Your task to perform on an android device: Empty the shopping cart on ebay.com. Add razer blackwidow to the cart on ebay.com, then select checkout. Image 0: 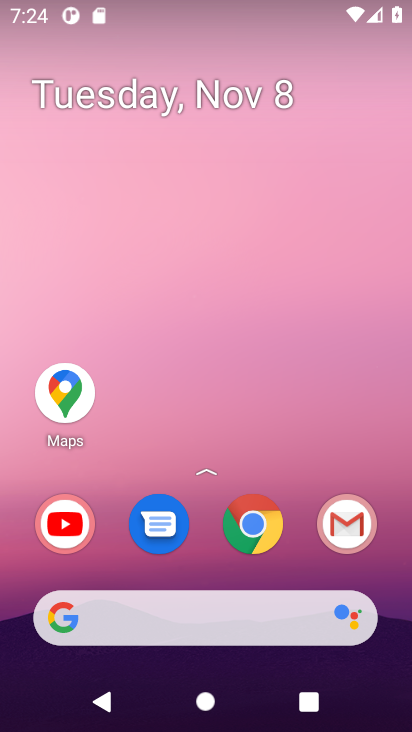
Step 0: click (253, 531)
Your task to perform on an android device: Empty the shopping cart on ebay.com. Add razer blackwidow to the cart on ebay.com, then select checkout. Image 1: 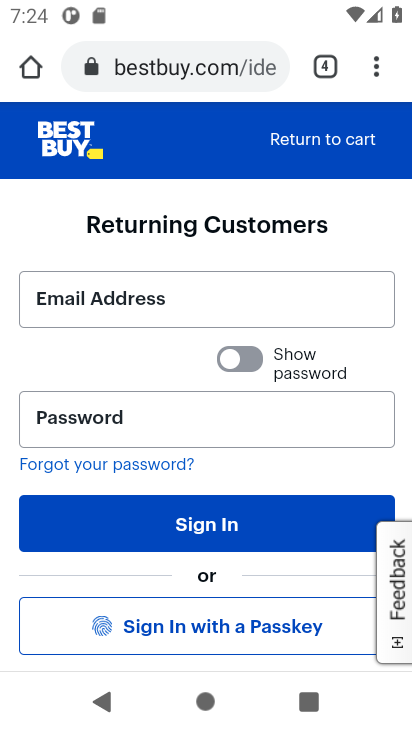
Step 1: click (176, 68)
Your task to perform on an android device: Empty the shopping cart on ebay.com. Add razer blackwidow to the cart on ebay.com, then select checkout. Image 2: 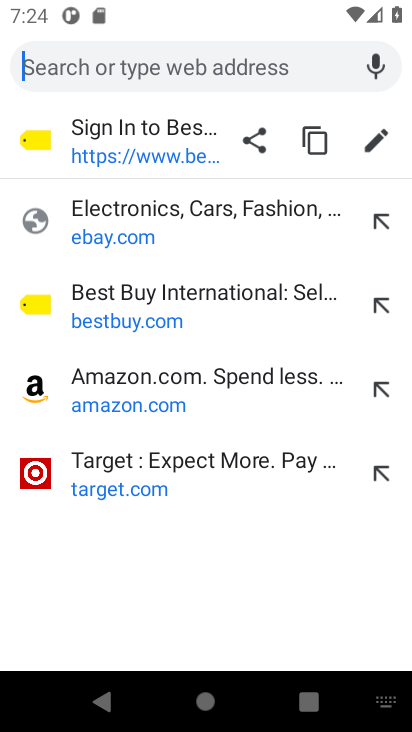
Step 2: click (93, 231)
Your task to perform on an android device: Empty the shopping cart on ebay.com. Add razer blackwidow to the cart on ebay.com, then select checkout. Image 3: 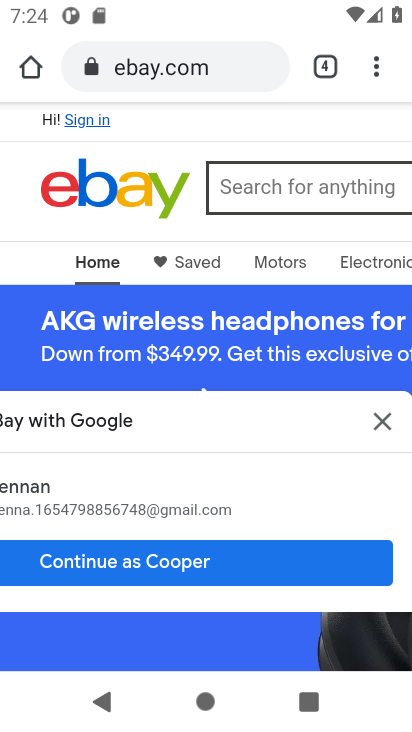
Step 3: drag from (321, 231) to (22, 248)
Your task to perform on an android device: Empty the shopping cart on ebay.com. Add razer blackwidow to the cart on ebay.com, then select checkout. Image 4: 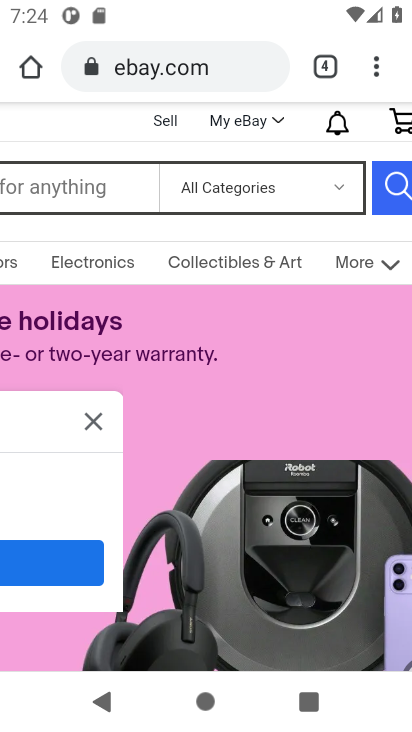
Step 4: click (402, 124)
Your task to perform on an android device: Empty the shopping cart on ebay.com. Add razer blackwidow to the cart on ebay.com, then select checkout. Image 5: 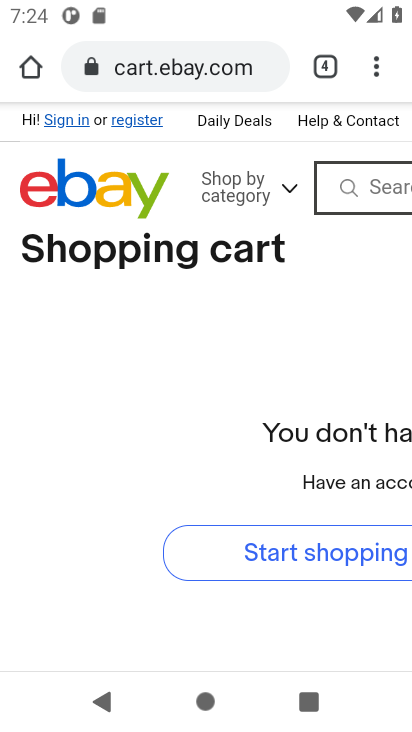
Step 5: drag from (372, 331) to (48, 330)
Your task to perform on an android device: Empty the shopping cart on ebay.com. Add razer blackwidow to the cart on ebay.com, then select checkout. Image 6: 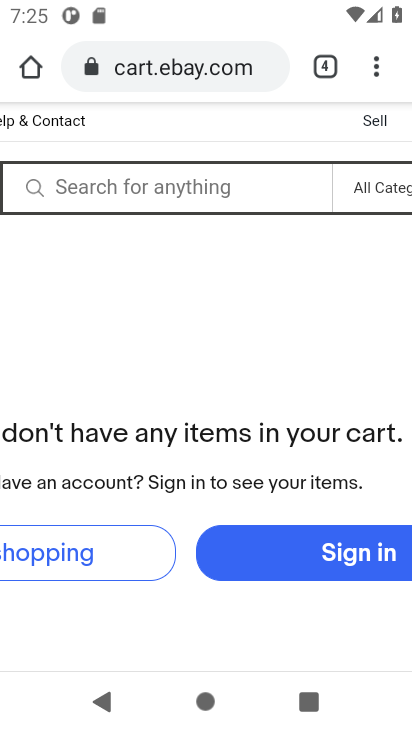
Step 6: click (141, 178)
Your task to perform on an android device: Empty the shopping cart on ebay.com. Add razer blackwidow to the cart on ebay.com, then select checkout. Image 7: 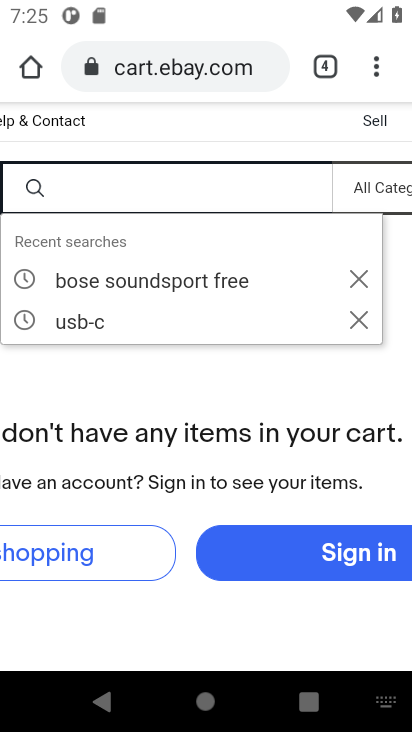
Step 7: type "razer blackwidow "
Your task to perform on an android device: Empty the shopping cart on ebay.com. Add razer blackwidow to the cart on ebay.com, then select checkout. Image 8: 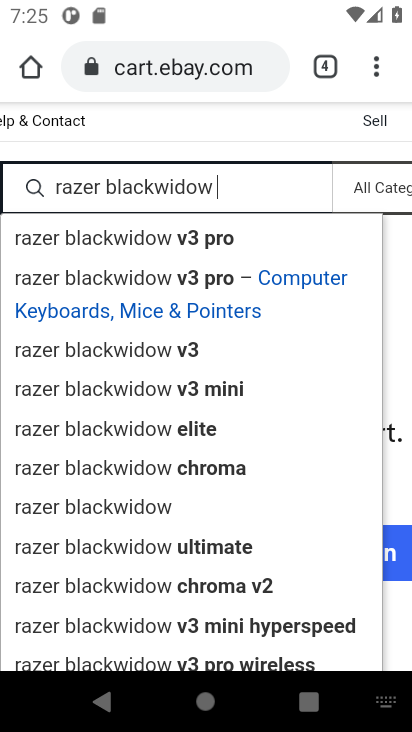
Step 8: click (144, 507)
Your task to perform on an android device: Empty the shopping cart on ebay.com. Add razer blackwidow to the cart on ebay.com, then select checkout. Image 9: 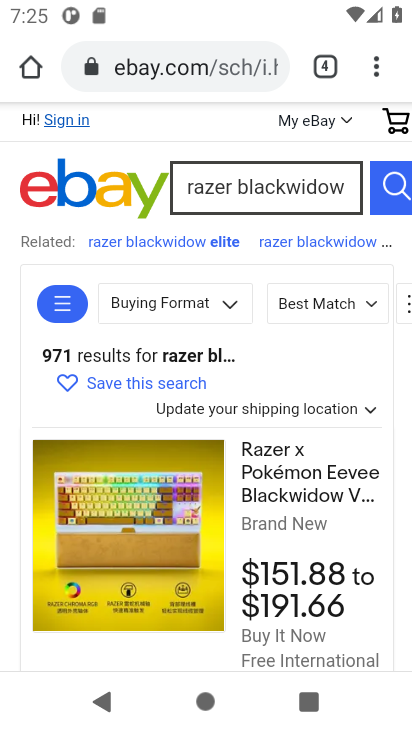
Step 9: drag from (215, 601) to (196, 172)
Your task to perform on an android device: Empty the shopping cart on ebay.com. Add razer blackwidow to the cart on ebay.com, then select checkout. Image 10: 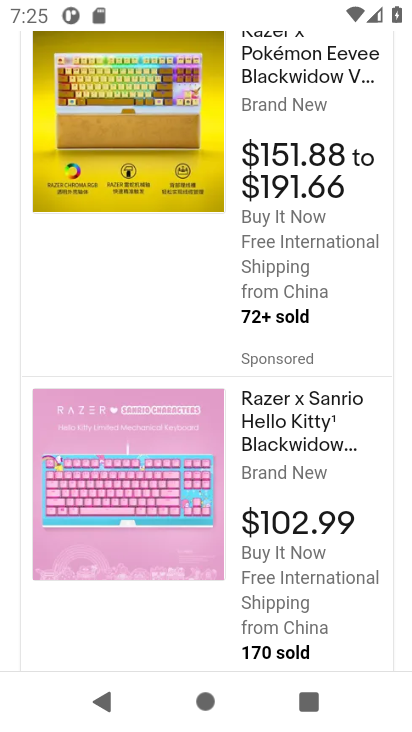
Step 10: drag from (196, 526) to (189, 251)
Your task to perform on an android device: Empty the shopping cart on ebay.com. Add razer blackwidow to the cart on ebay.com, then select checkout. Image 11: 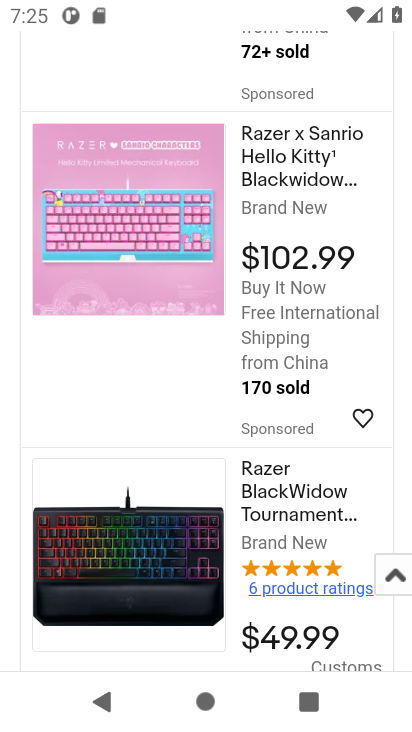
Step 11: click (188, 548)
Your task to perform on an android device: Empty the shopping cart on ebay.com. Add razer blackwidow to the cart on ebay.com, then select checkout. Image 12: 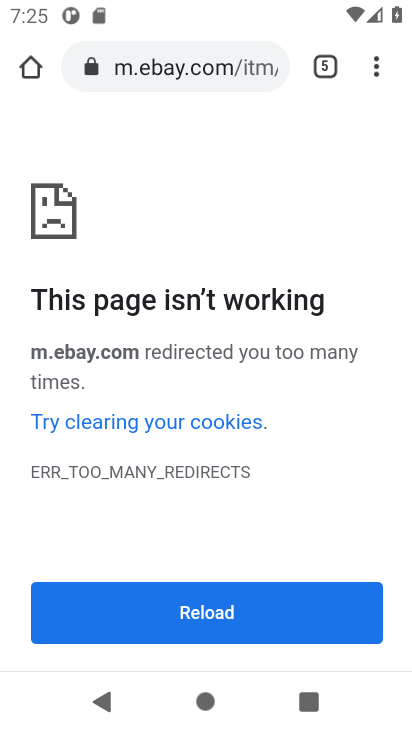
Step 12: task complete